Your task to perform on an android device: What's the weather going to be this weekend? Image 0: 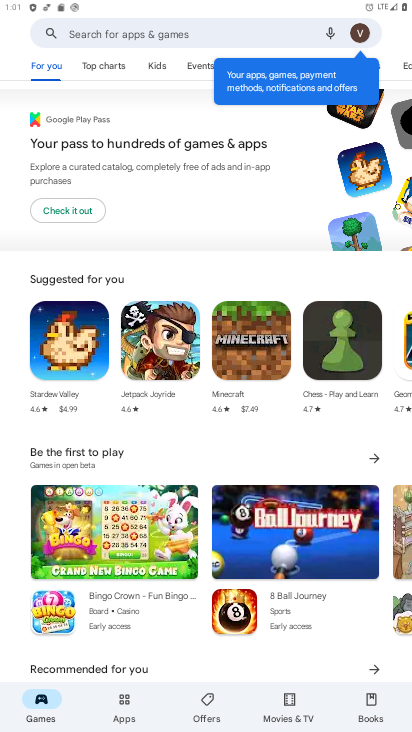
Step 0: press home button
Your task to perform on an android device: What's the weather going to be this weekend? Image 1: 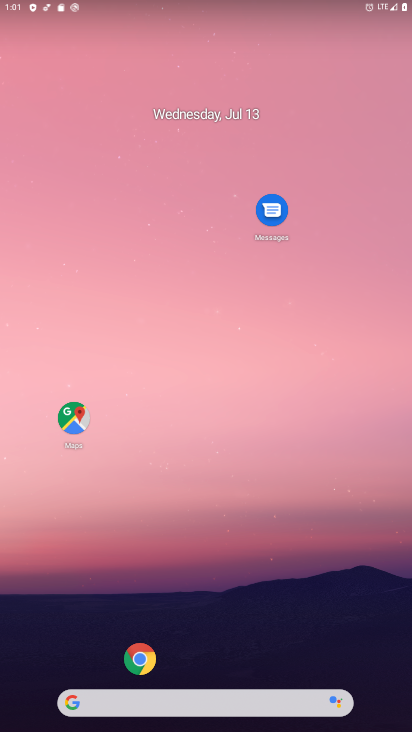
Step 1: click (134, 699)
Your task to perform on an android device: What's the weather going to be this weekend? Image 2: 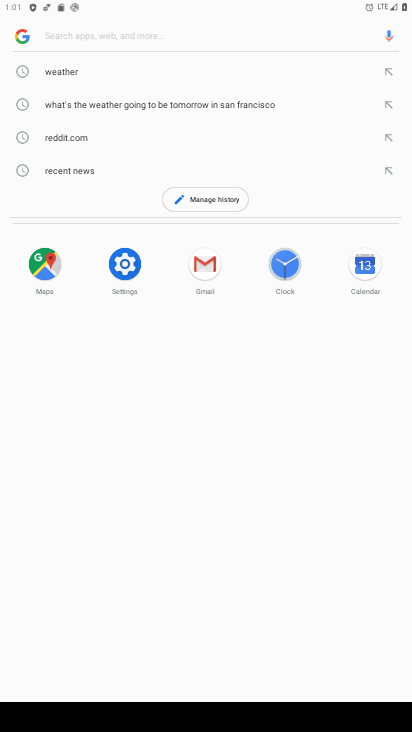
Step 2: type "What's the weather going to be this weekend?"
Your task to perform on an android device: What's the weather going to be this weekend? Image 3: 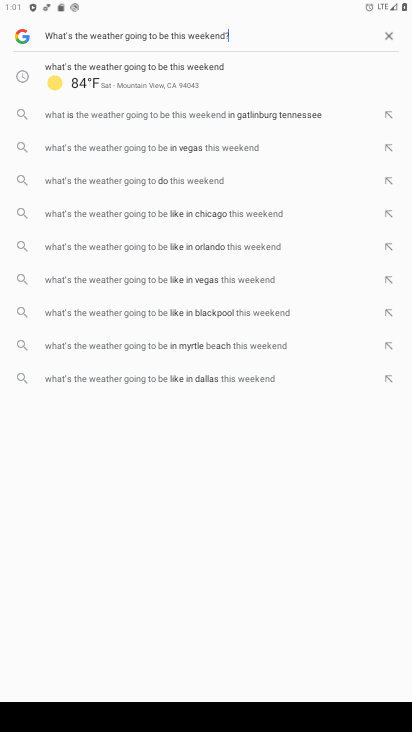
Step 3: type ""
Your task to perform on an android device: What's the weather going to be this weekend? Image 4: 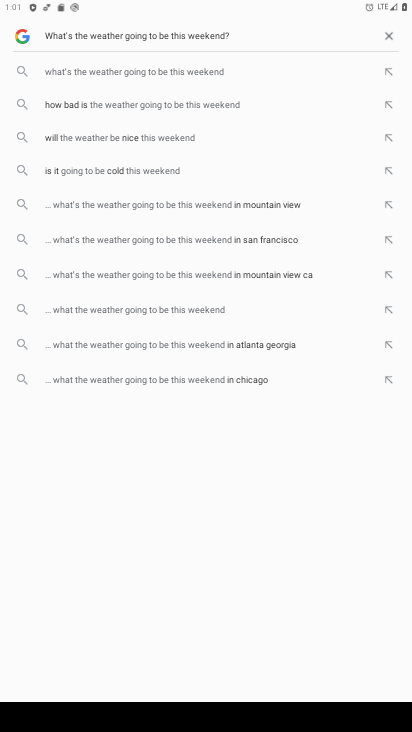
Step 4: type ""
Your task to perform on an android device: What's the weather going to be this weekend? Image 5: 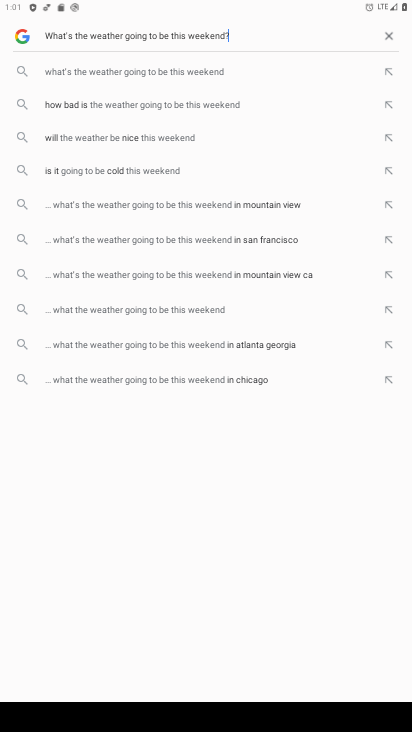
Step 5: type ""
Your task to perform on an android device: What's the weather going to be this weekend? Image 6: 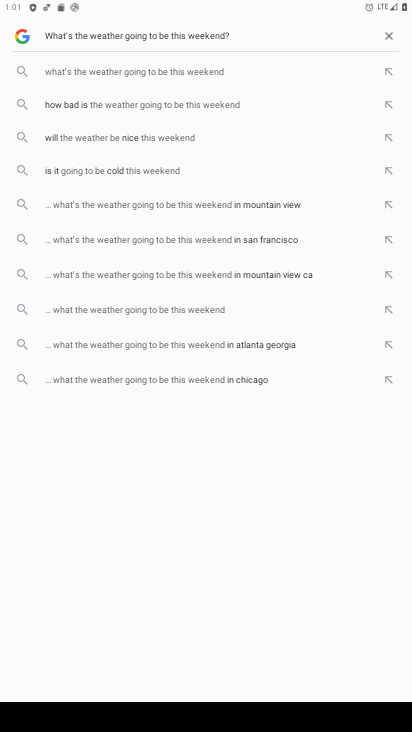
Step 6: type ""
Your task to perform on an android device: What's the weather going to be this weekend? Image 7: 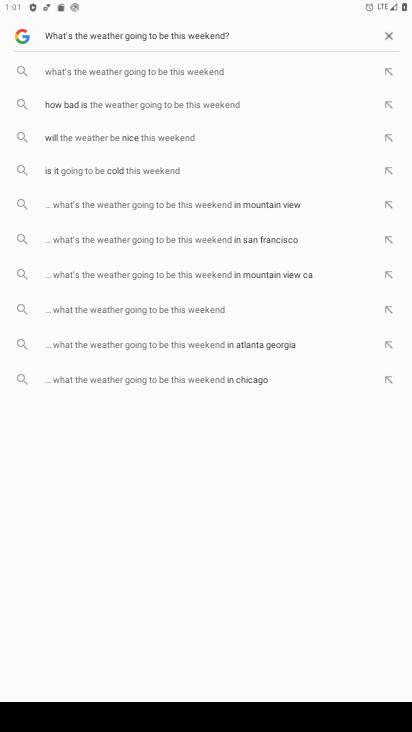
Step 7: task complete